Your task to perform on an android device: Open Chrome and go to settings Image 0: 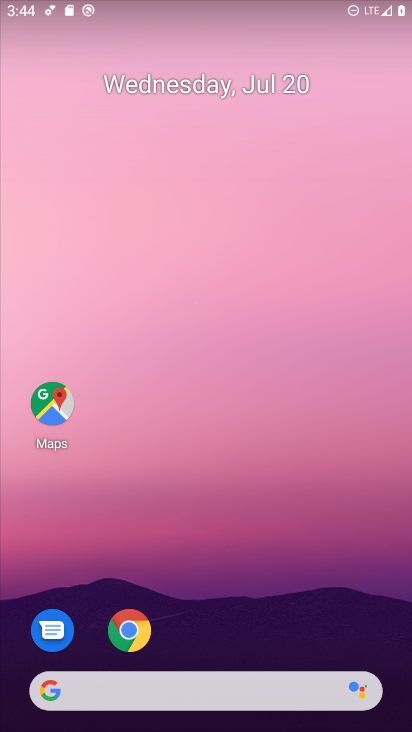
Step 0: press home button
Your task to perform on an android device: Open Chrome and go to settings Image 1: 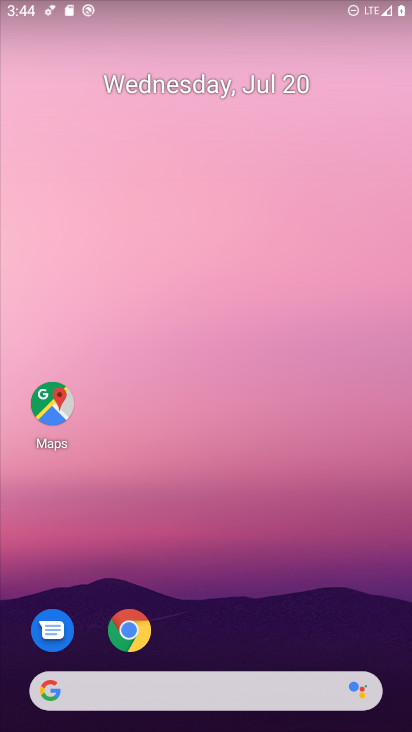
Step 1: click (126, 623)
Your task to perform on an android device: Open Chrome and go to settings Image 2: 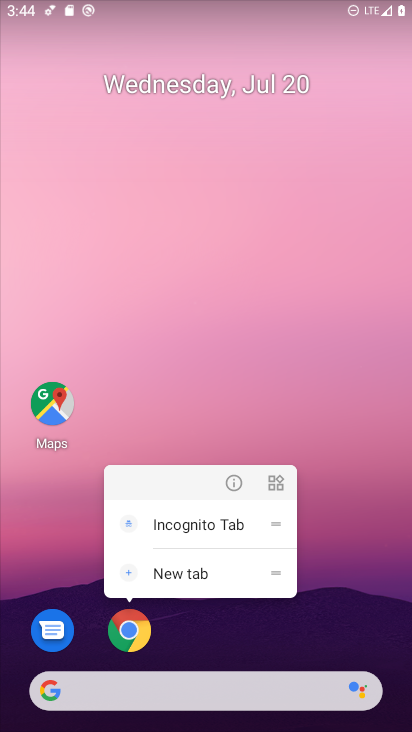
Step 2: click (125, 621)
Your task to perform on an android device: Open Chrome and go to settings Image 3: 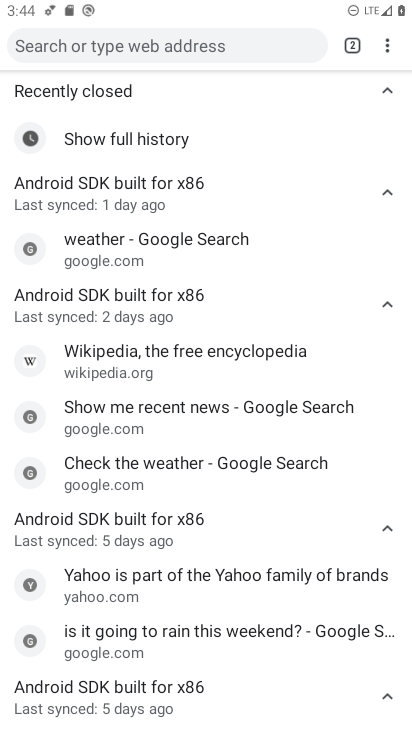
Step 3: click (388, 47)
Your task to perform on an android device: Open Chrome and go to settings Image 4: 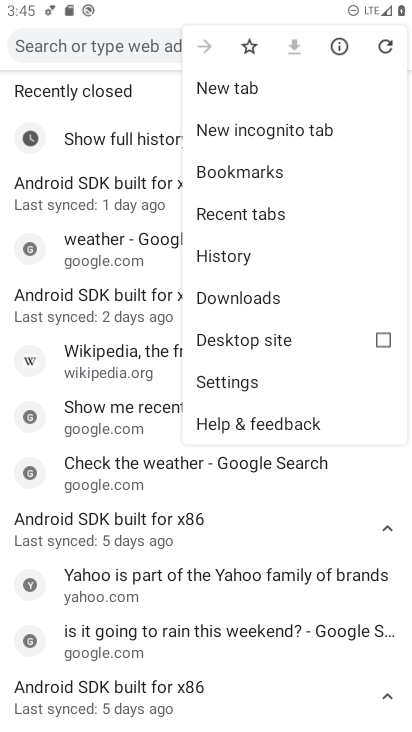
Step 4: click (260, 380)
Your task to perform on an android device: Open Chrome and go to settings Image 5: 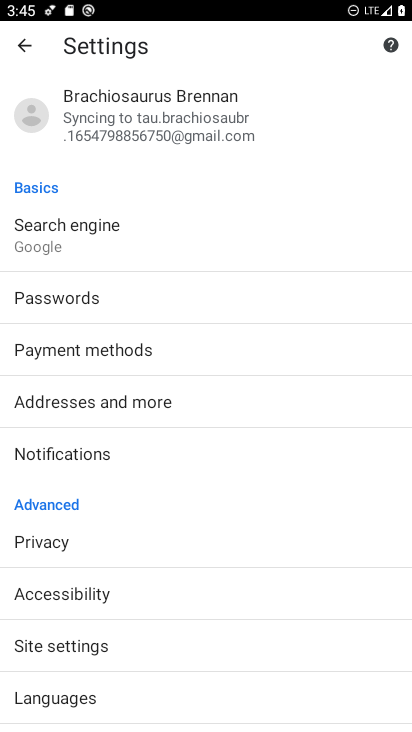
Step 5: task complete